Your task to perform on an android device: install app "Speedtest by Ookla" Image 0: 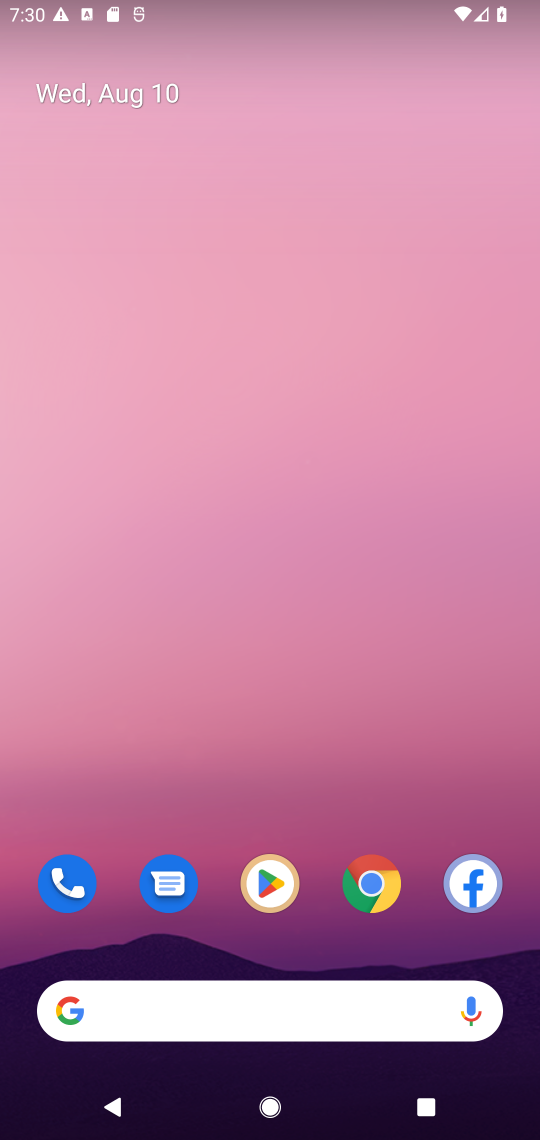
Step 0: drag from (315, 797) to (328, 35)
Your task to perform on an android device: install app "Speedtest by Ookla" Image 1: 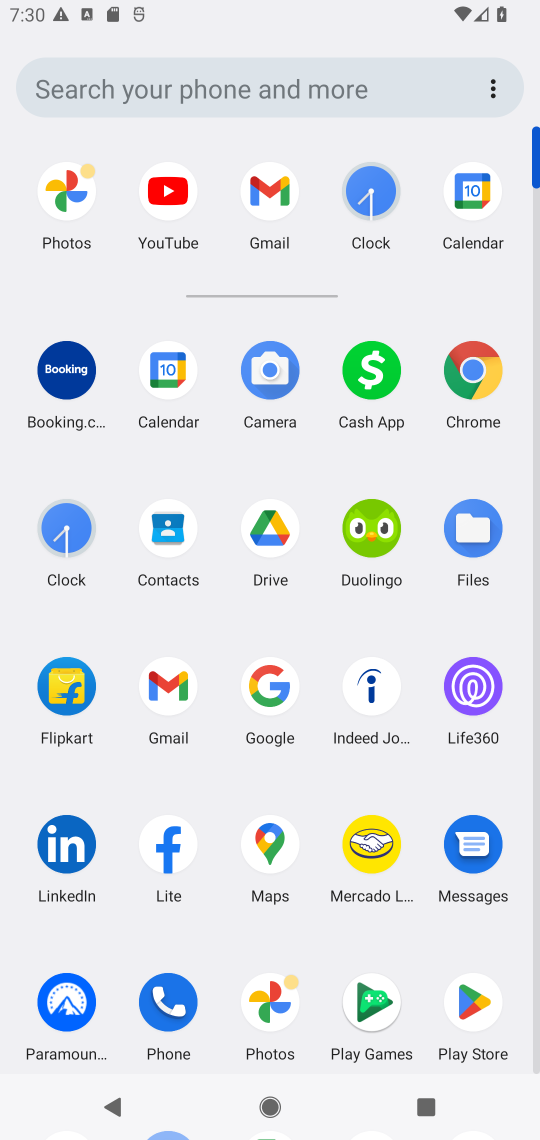
Step 1: click (469, 1013)
Your task to perform on an android device: install app "Speedtest by Ookla" Image 2: 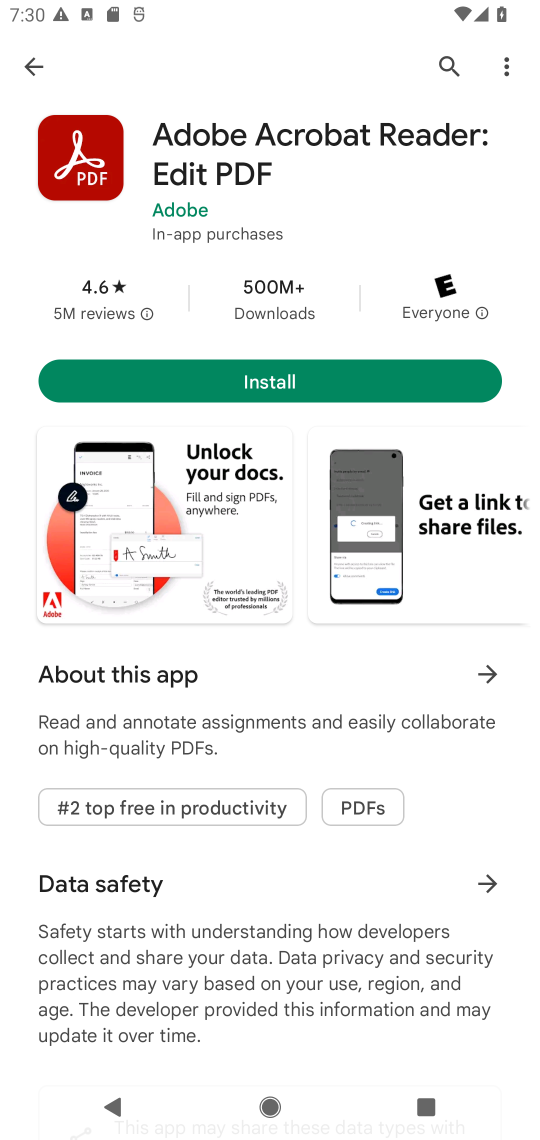
Step 2: click (446, 55)
Your task to perform on an android device: install app "Speedtest by Ookla" Image 3: 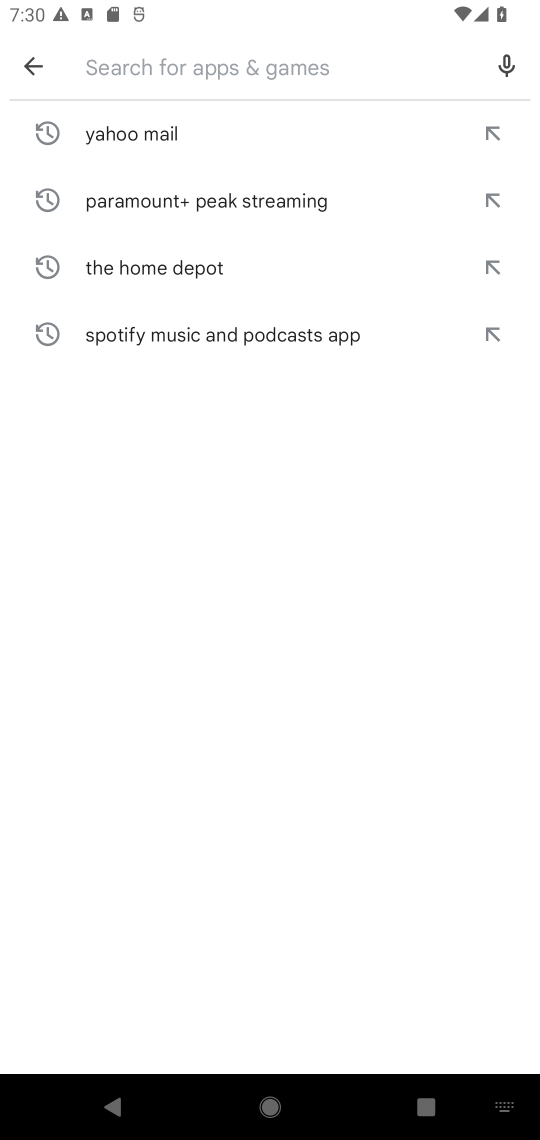
Step 3: type "Speedtest by Ookla"
Your task to perform on an android device: install app "Speedtest by Ookla" Image 4: 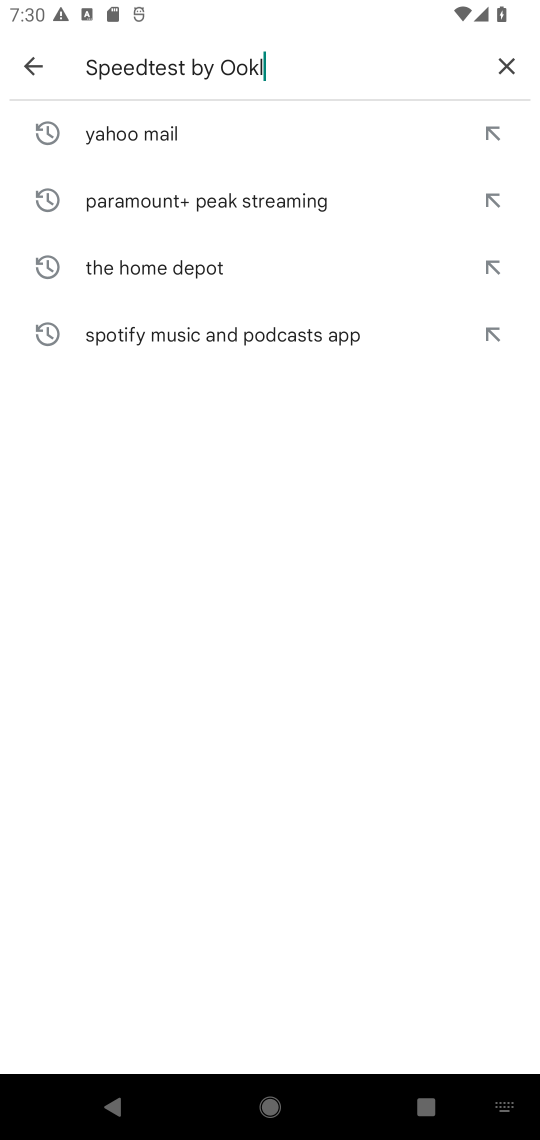
Step 4: type ""
Your task to perform on an android device: install app "Speedtest by Ookla" Image 5: 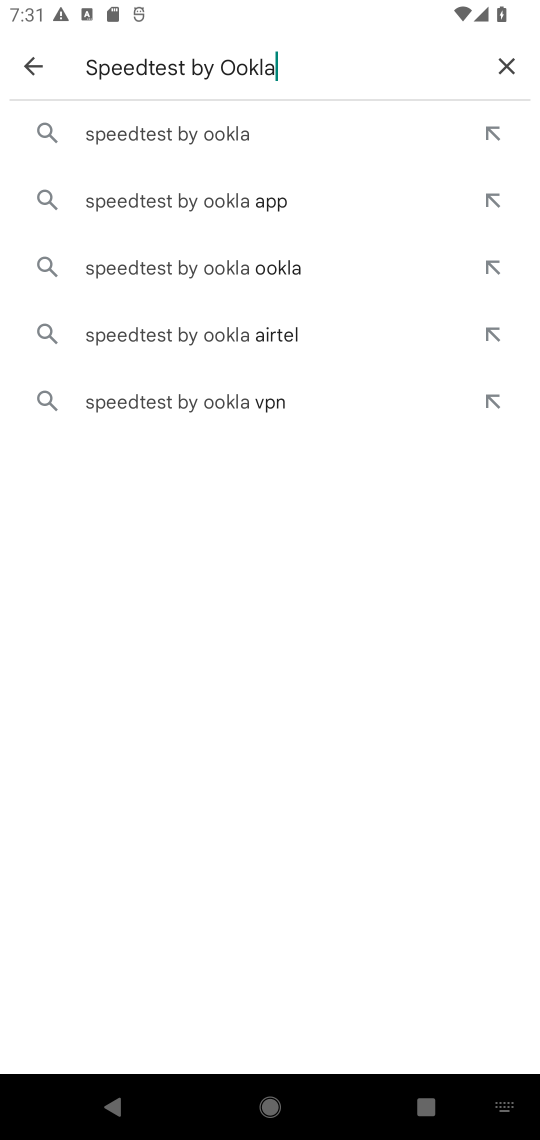
Step 5: click (143, 129)
Your task to perform on an android device: install app "Speedtest by Ookla" Image 6: 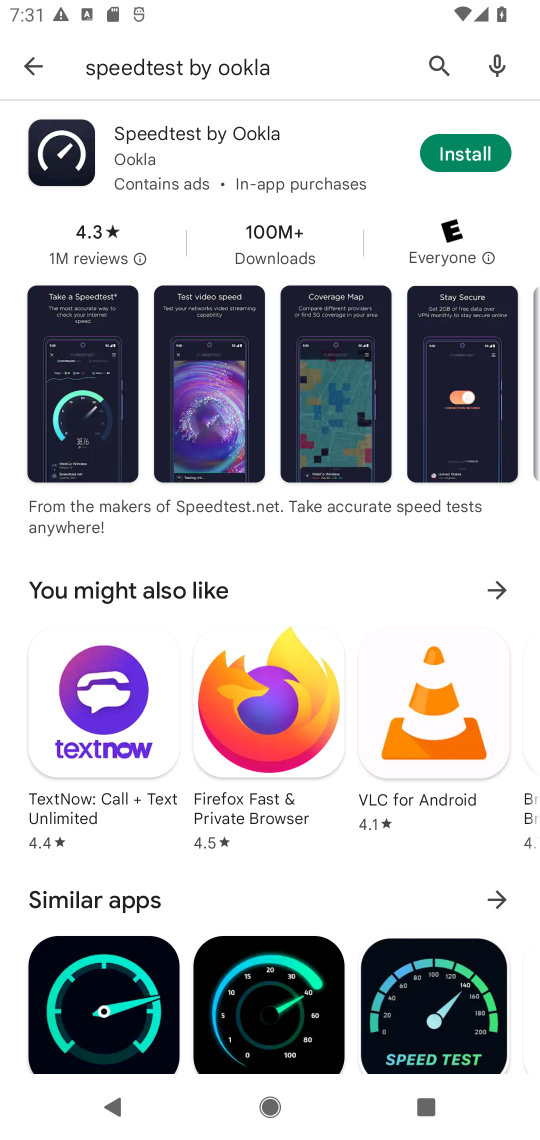
Step 6: click (464, 158)
Your task to perform on an android device: install app "Speedtest by Ookla" Image 7: 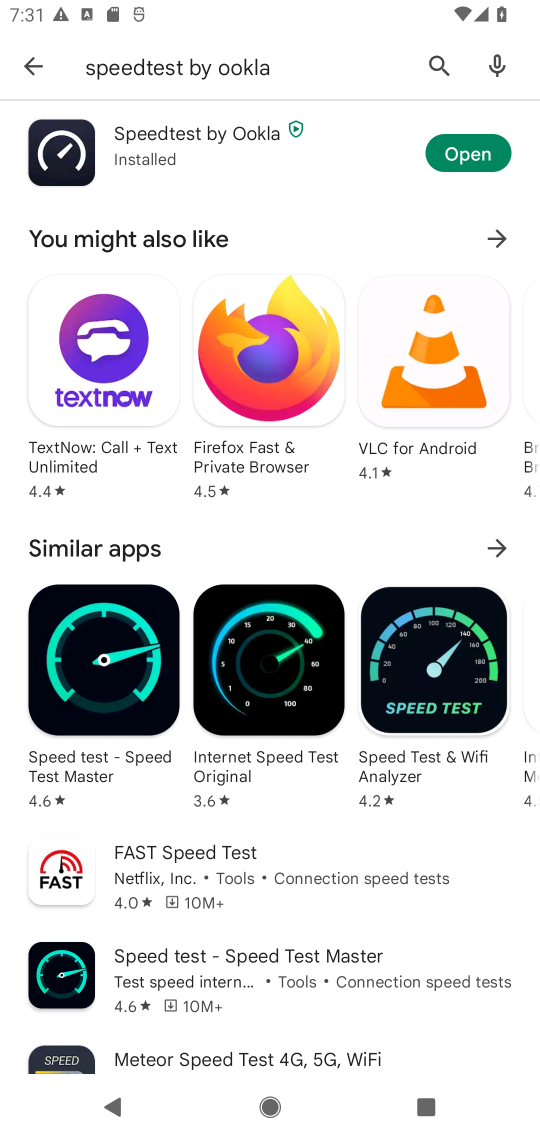
Step 7: task complete